Your task to perform on an android device: Open Maps and search for coffee Image 0: 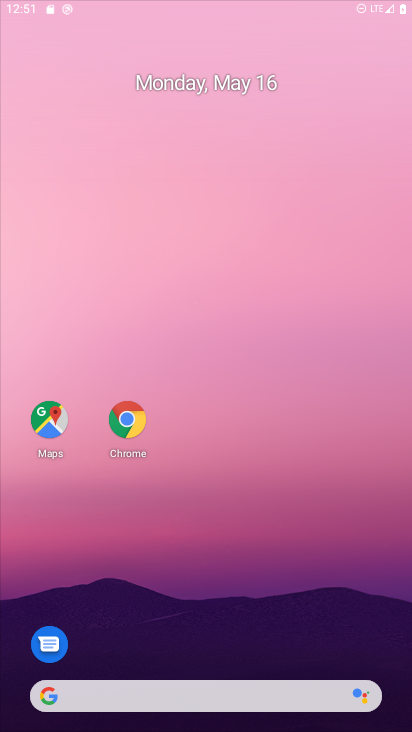
Step 0: click (204, 127)
Your task to perform on an android device: Open Maps and search for coffee Image 1: 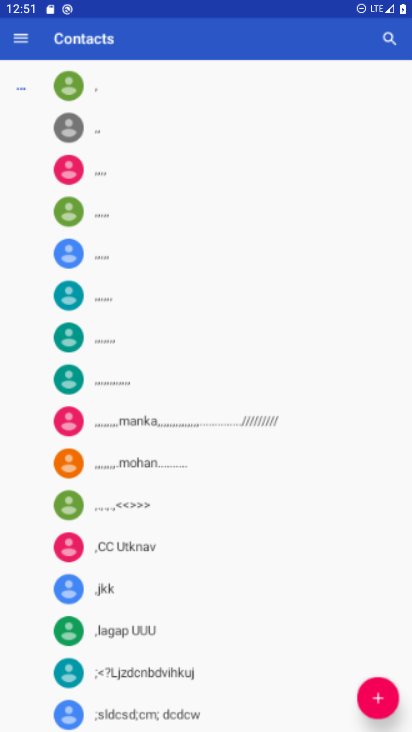
Step 1: drag from (211, 571) to (220, 65)
Your task to perform on an android device: Open Maps and search for coffee Image 2: 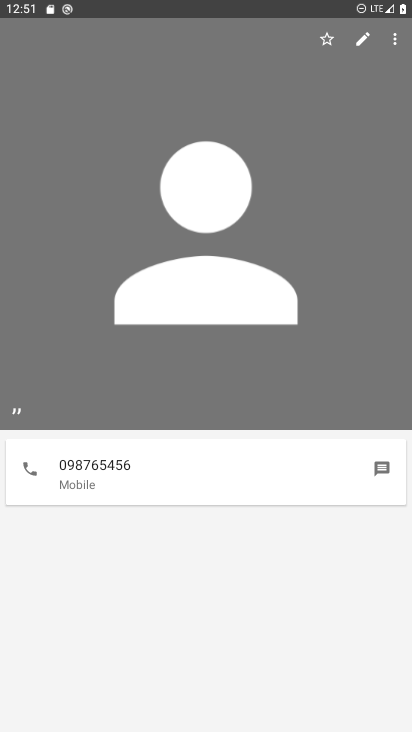
Step 2: press home button
Your task to perform on an android device: Open Maps and search for coffee Image 3: 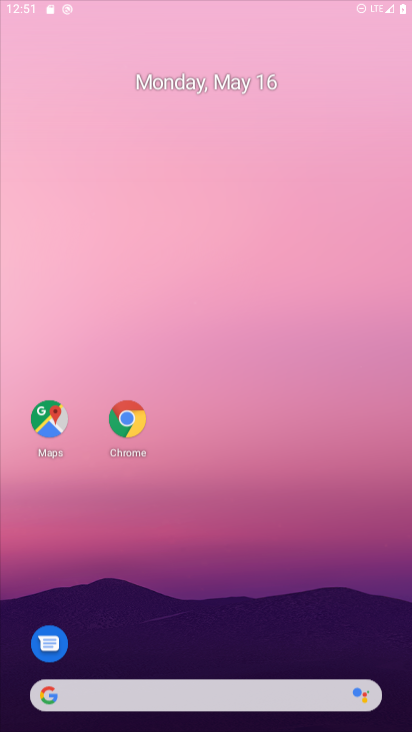
Step 3: drag from (231, 598) to (323, 14)
Your task to perform on an android device: Open Maps and search for coffee Image 4: 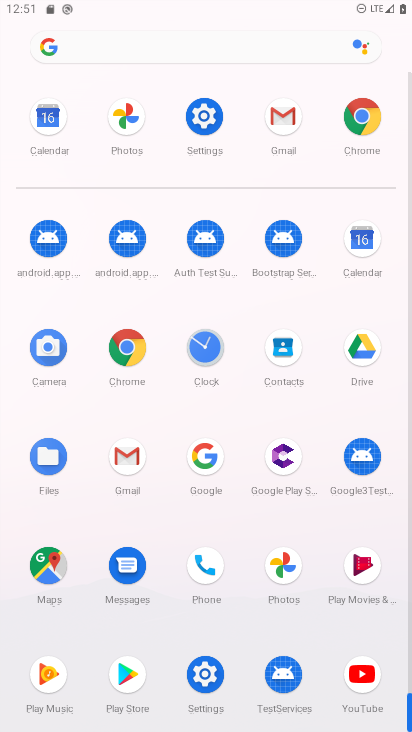
Step 4: click (29, 555)
Your task to perform on an android device: Open Maps and search for coffee Image 5: 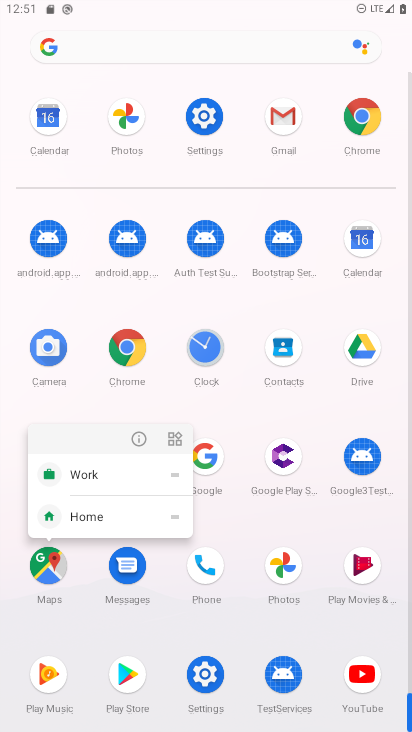
Step 5: click (125, 431)
Your task to perform on an android device: Open Maps and search for coffee Image 6: 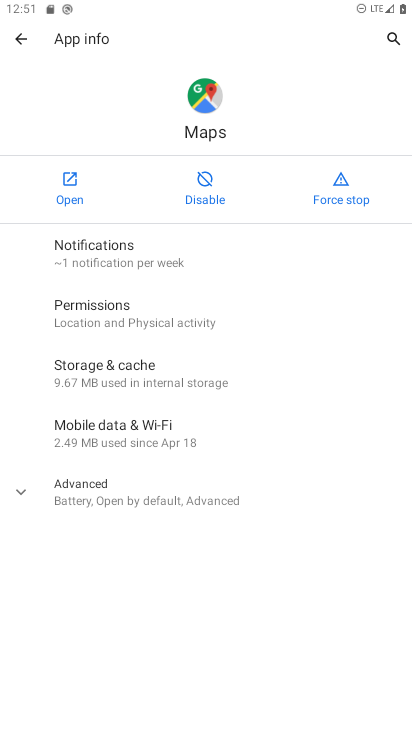
Step 6: click (61, 190)
Your task to perform on an android device: Open Maps and search for coffee Image 7: 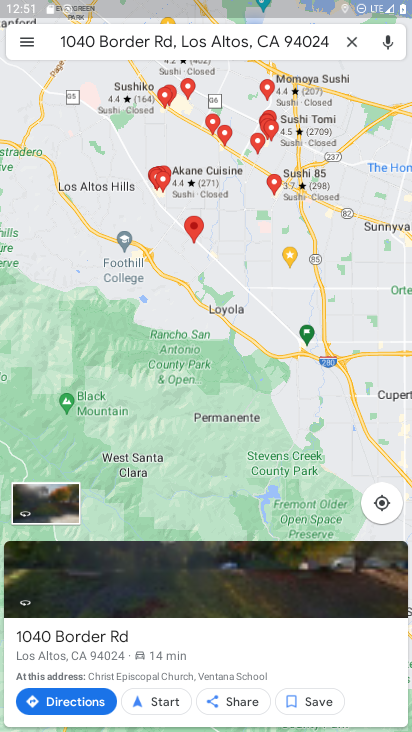
Step 7: drag from (194, 568) to (334, 147)
Your task to perform on an android device: Open Maps and search for coffee Image 8: 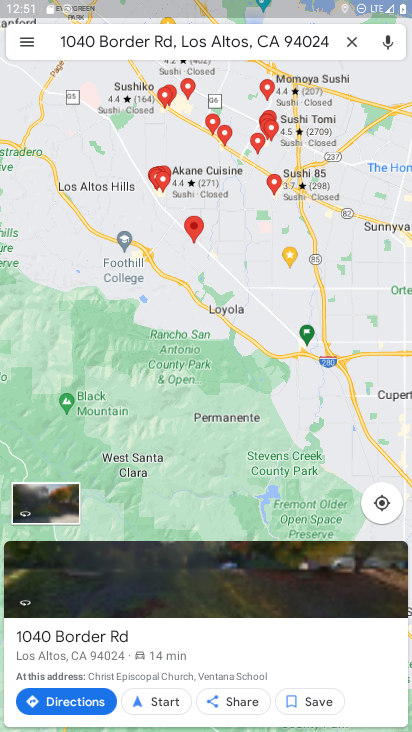
Step 8: drag from (255, 136) to (241, 564)
Your task to perform on an android device: Open Maps and search for coffee Image 9: 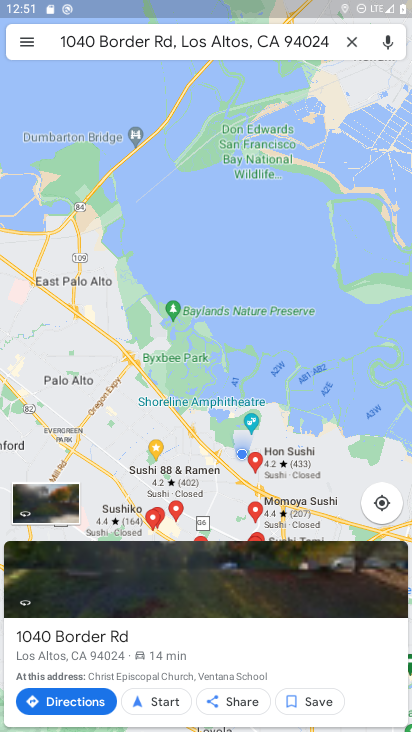
Step 9: click (349, 51)
Your task to perform on an android device: Open Maps and search for coffee Image 10: 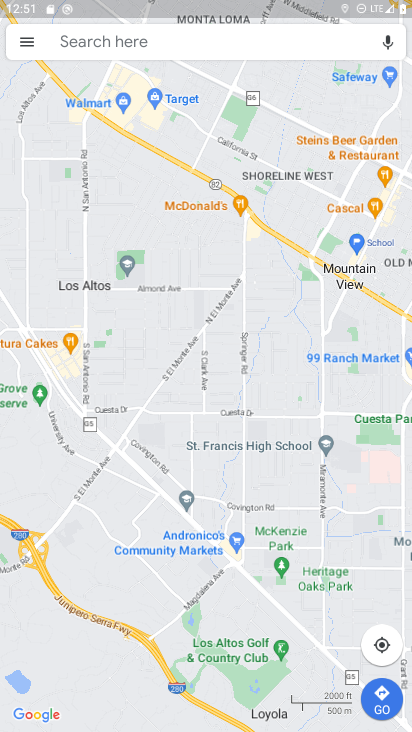
Step 10: click (99, 43)
Your task to perform on an android device: Open Maps and search for coffee Image 11: 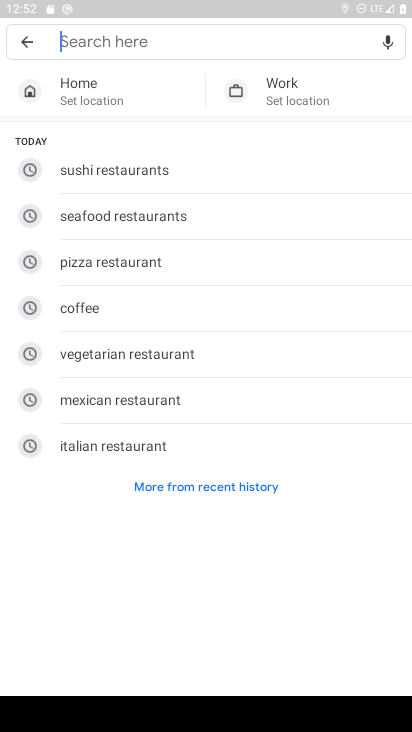
Step 11: click (100, 311)
Your task to perform on an android device: Open Maps and search for coffee Image 12: 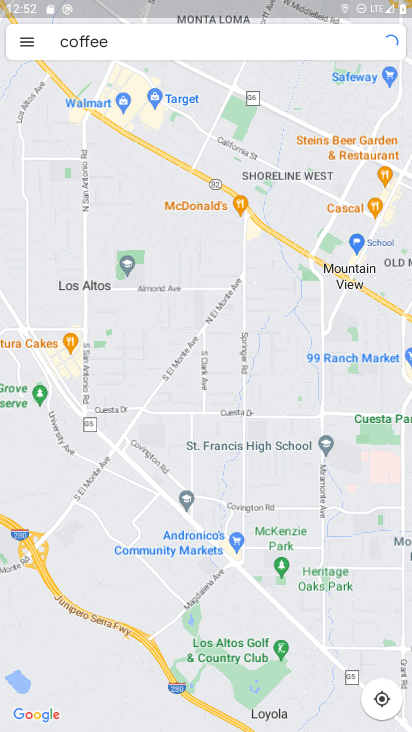
Step 12: task complete